Your task to perform on an android device: Open the stopwatch Image 0: 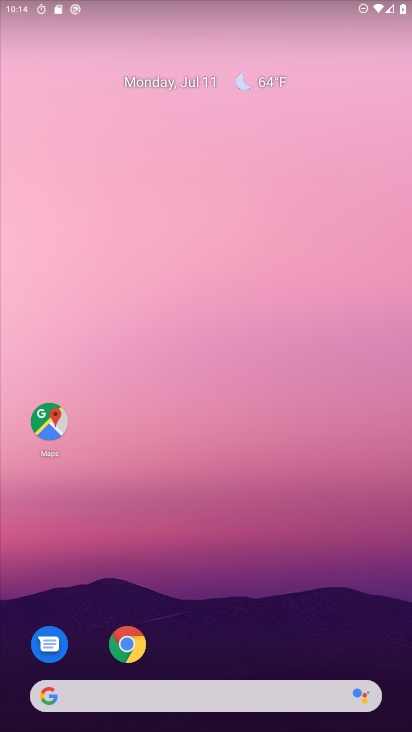
Step 0: drag from (268, 605) to (235, 78)
Your task to perform on an android device: Open the stopwatch Image 1: 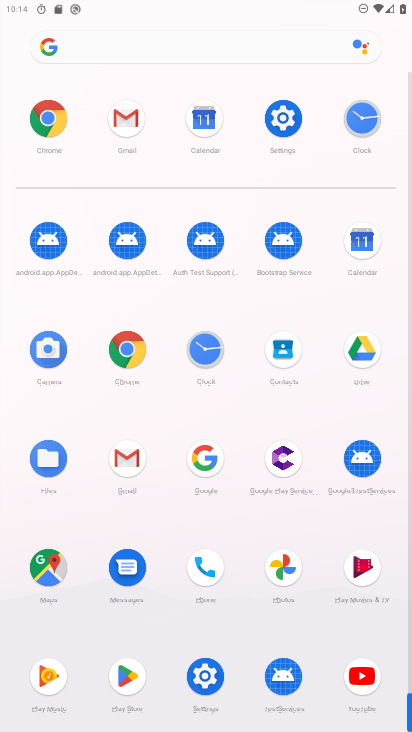
Step 1: click (208, 341)
Your task to perform on an android device: Open the stopwatch Image 2: 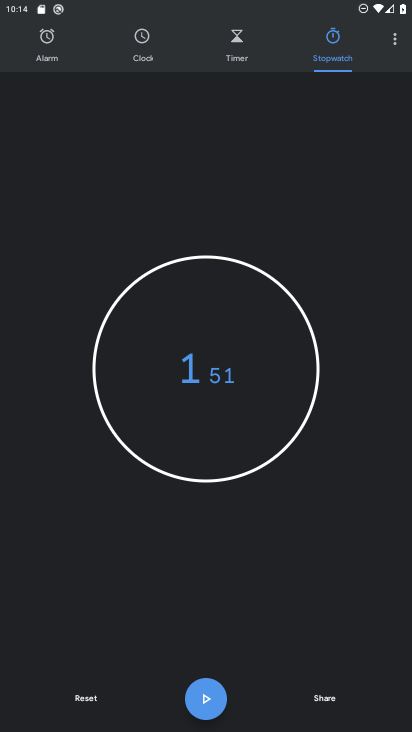
Step 2: task complete